Your task to perform on an android device: open a new tab in the chrome app Image 0: 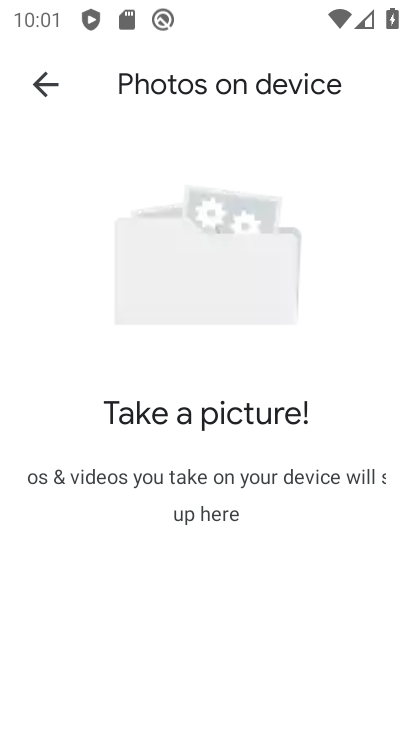
Step 0: click (44, 87)
Your task to perform on an android device: open a new tab in the chrome app Image 1: 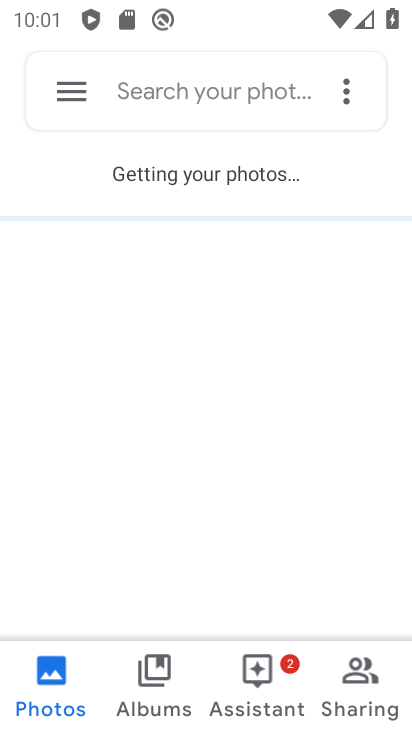
Step 1: press back button
Your task to perform on an android device: open a new tab in the chrome app Image 2: 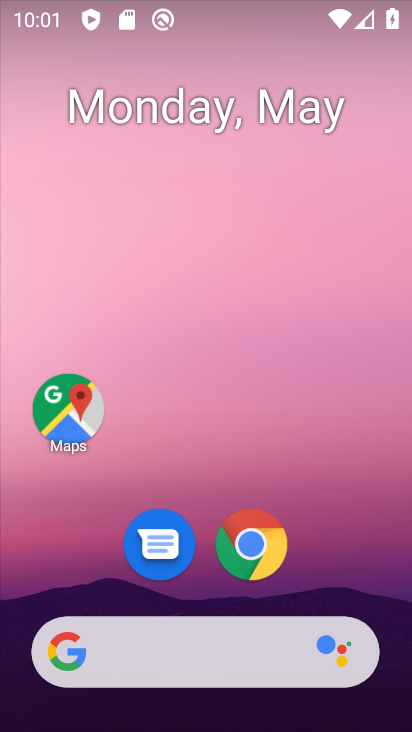
Step 2: drag from (282, 670) to (172, 22)
Your task to perform on an android device: open a new tab in the chrome app Image 3: 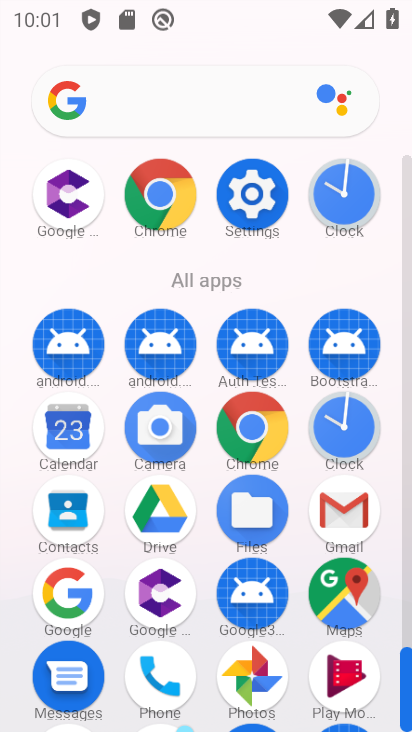
Step 3: click (154, 201)
Your task to perform on an android device: open a new tab in the chrome app Image 4: 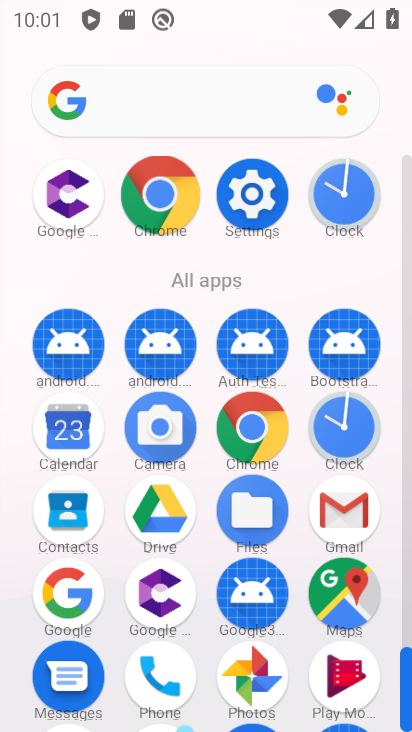
Step 4: click (155, 199)
Your task to perform on an android device: open a new tab in the chrome app Image 5: 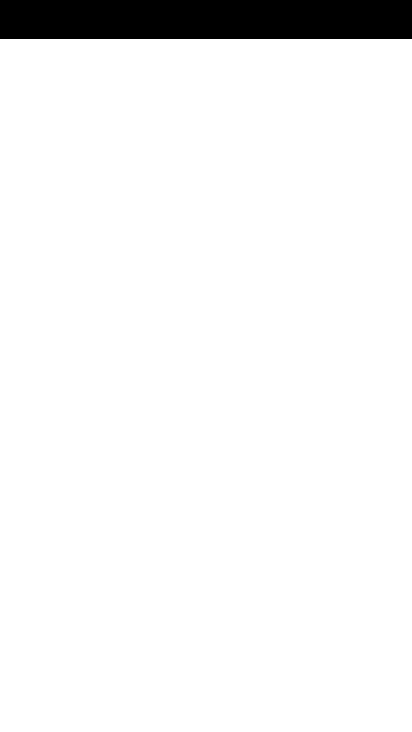
Step 5: click (155, 199)
Your task to perform on an android device: open a new tab in the chrome app Image 6: 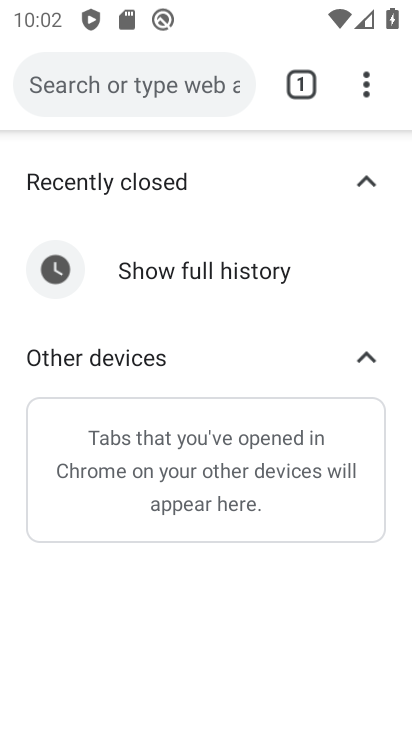
Step 6: task complete